Your task to perform on an android device: install app "Viber Messenger" Image 0: 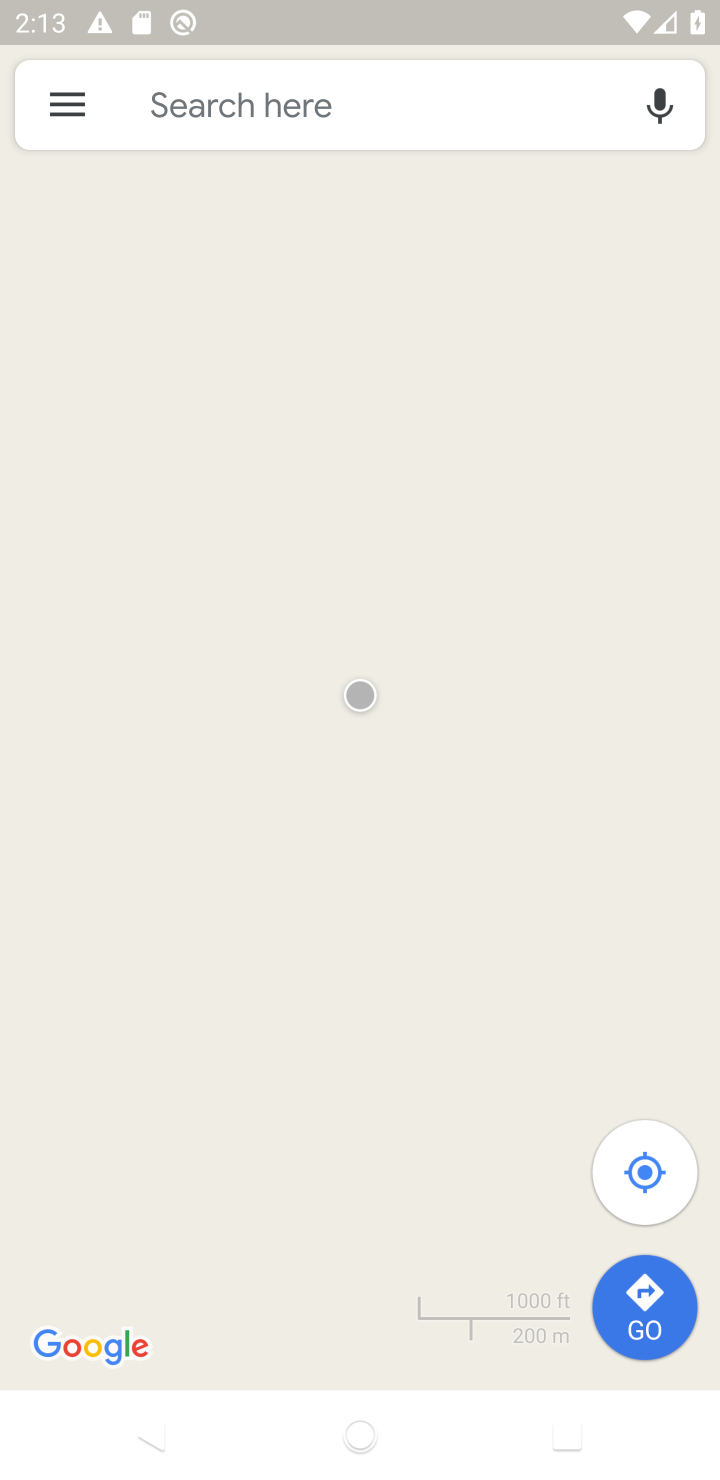
Step 0: press home button
Your task to perform on an android device: install app "Viber Messenger" Image 1: 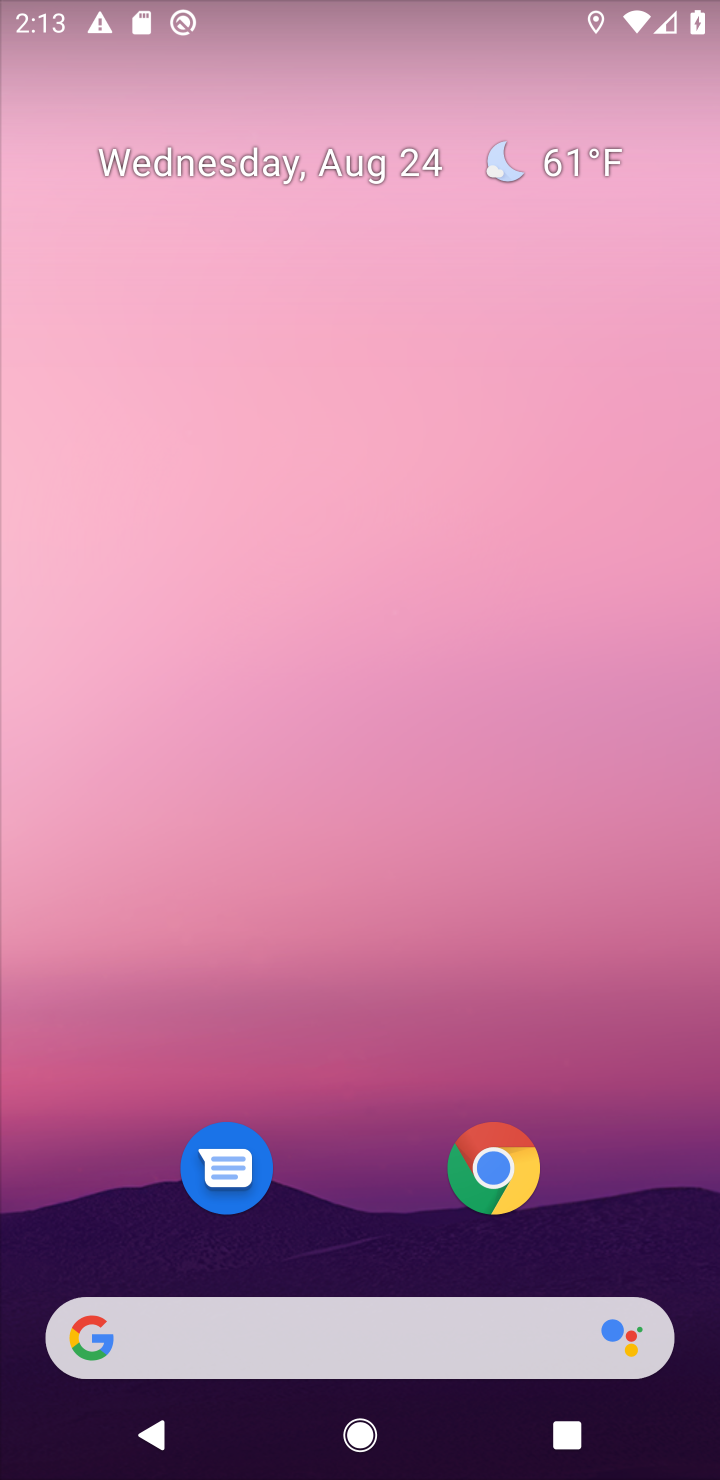
Step 1: drag from (661, 1261) to (543, 142)
Your task to perform on an android device: install app "Viber Messenger" Image 2: 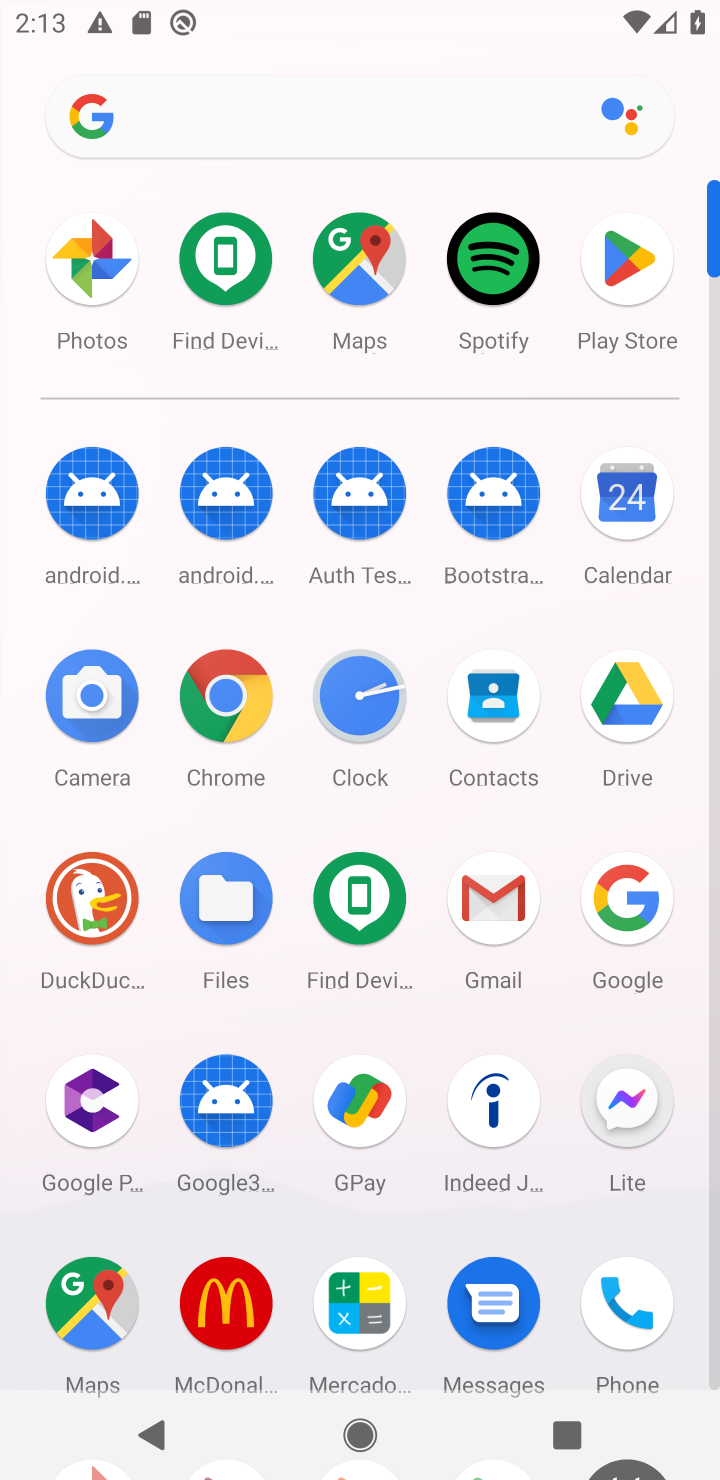
Step 2: click (716, 1335)
Your task to perform on an android device: install app "Viber Messenger" Image 3: 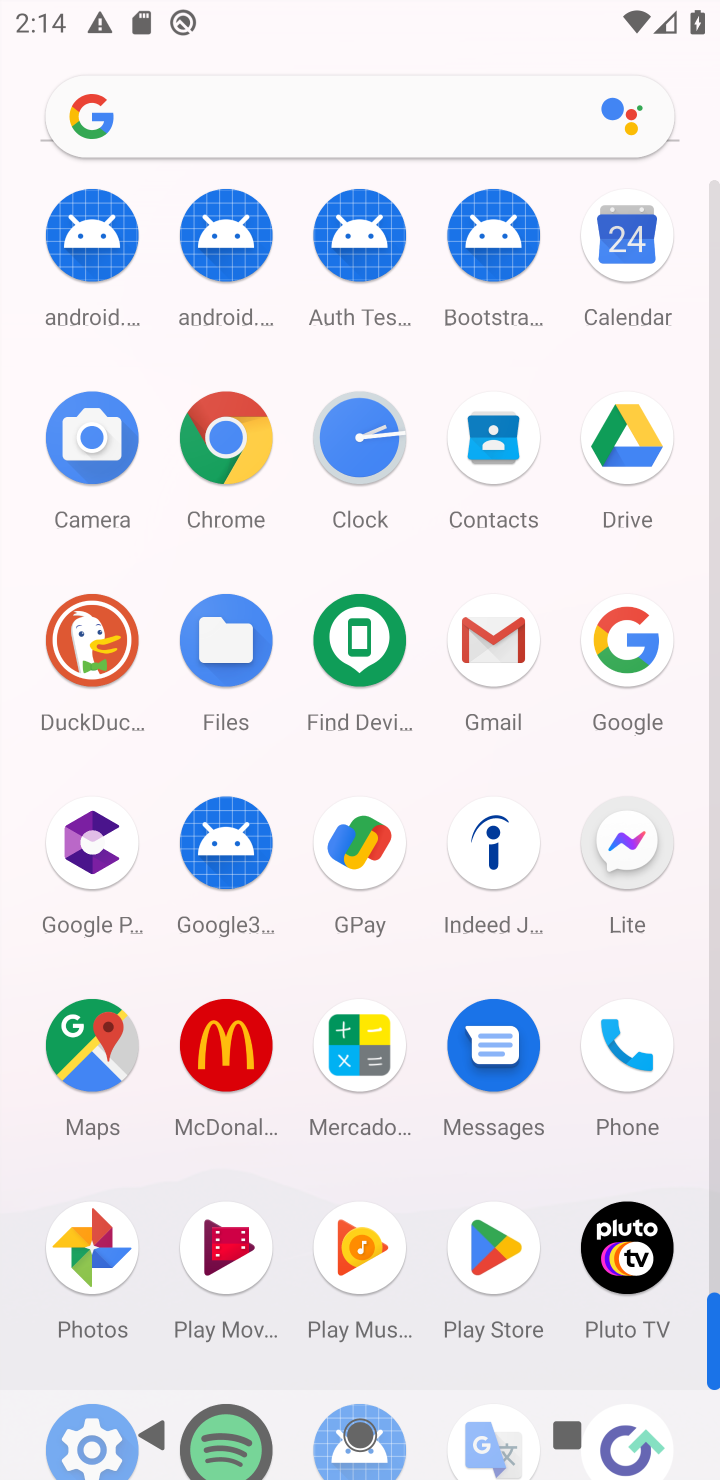
Step 3: click (494, 1241)
Your task to perform on an android device: install app "Viber Messenger" Image 4: 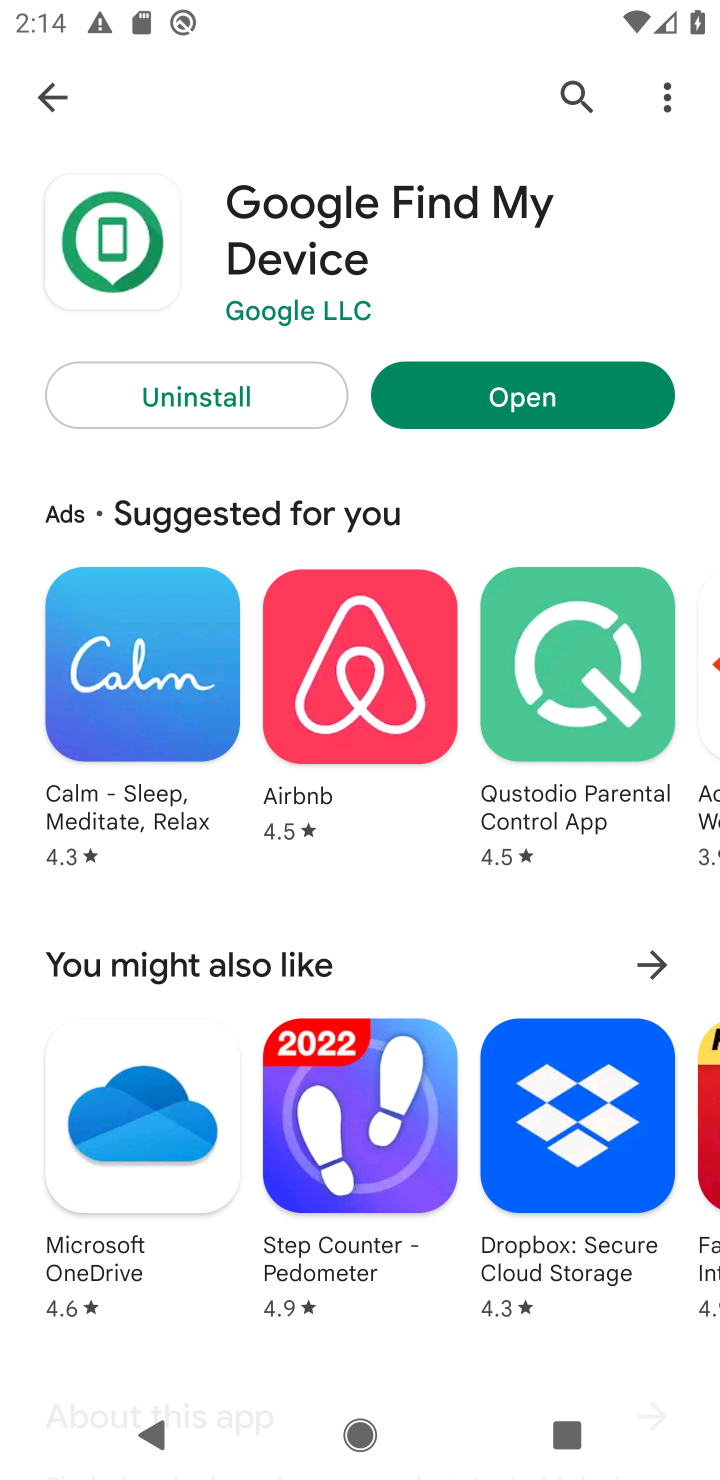
Step 4: click (572, 91)
Your task to perform on an android device: install app "Viber Messenger" Image 5: 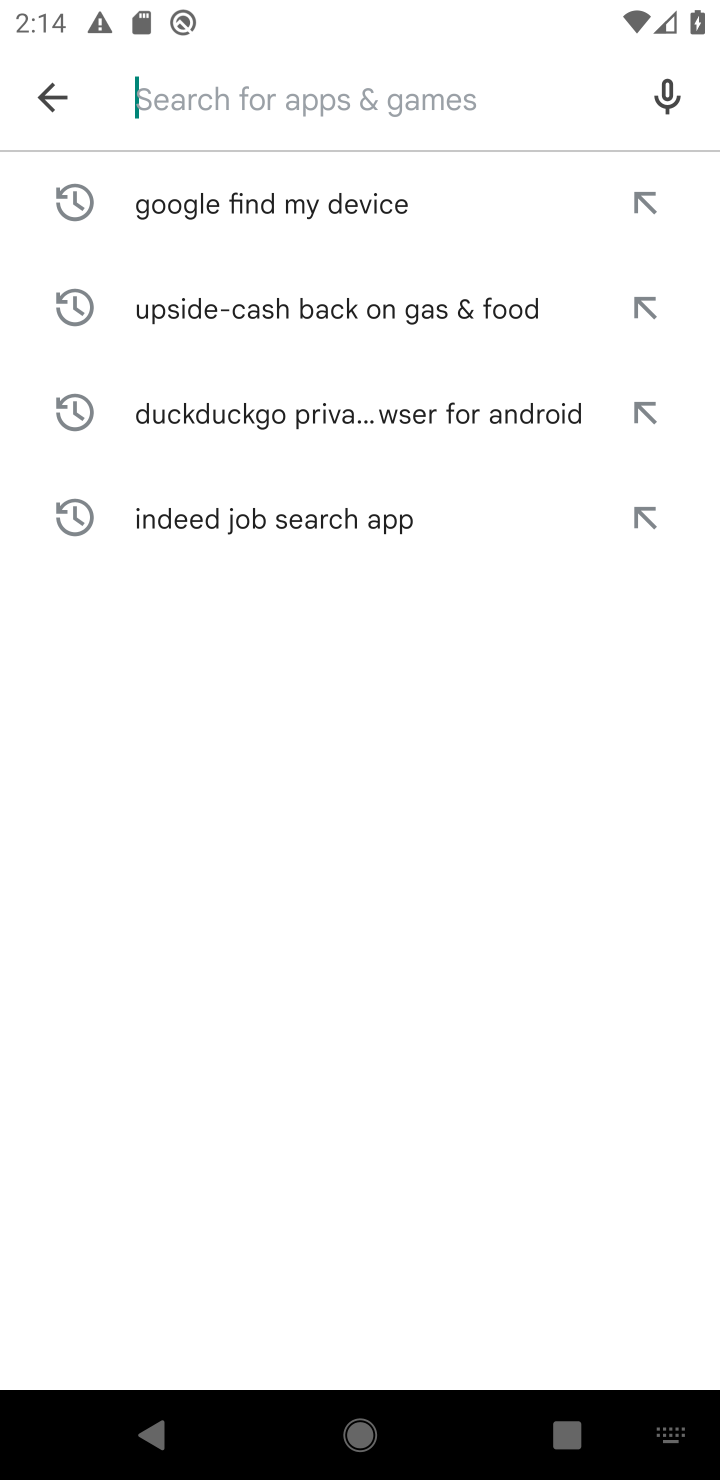
Step 5: type "Viber Messenger"
Your task to perform on an android device: install app "Viber Messenger" Image 6: 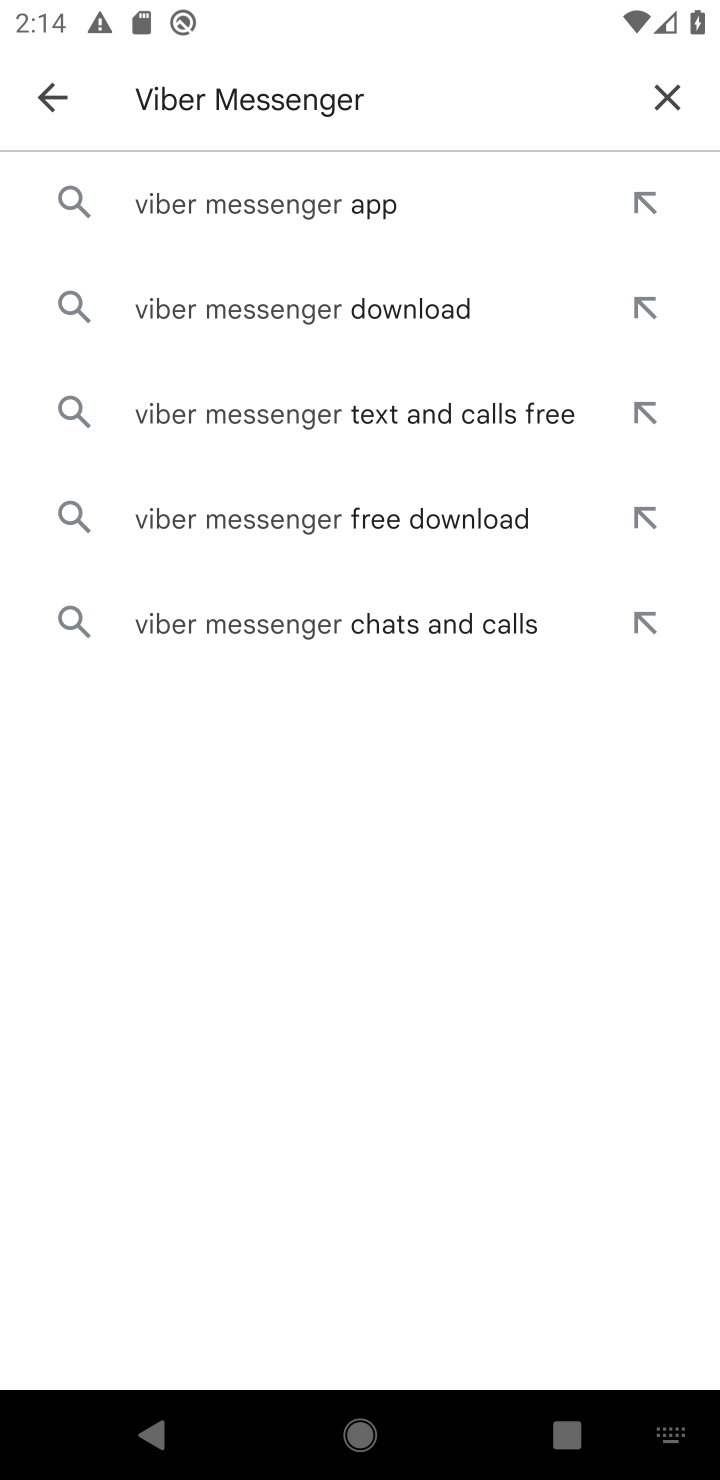
Step 6: click (249, 207)
Your task to perform on an android device: install app "Viber Messenger" Image 7: 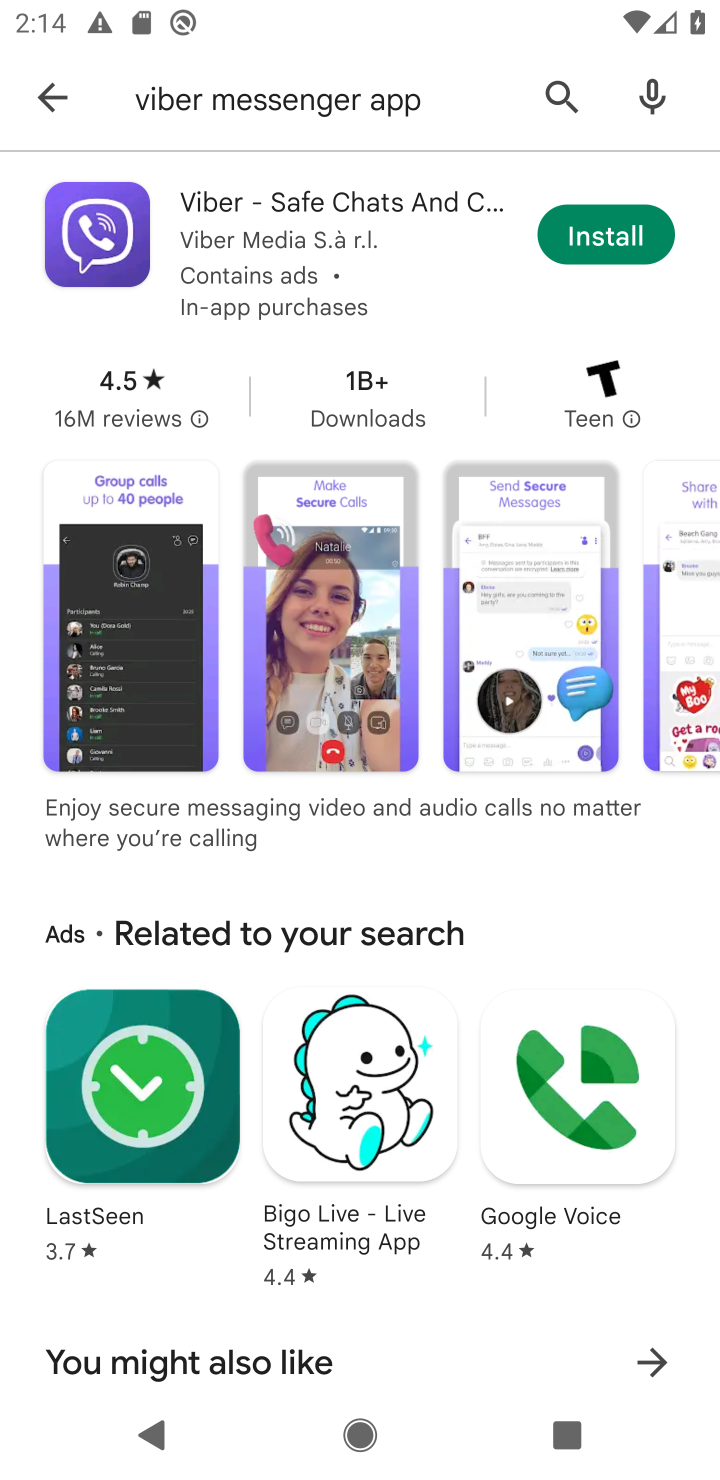
Step 7: click (207, 211)
Your task to perform on an android device: install app "Viber Messenger" Image 8: 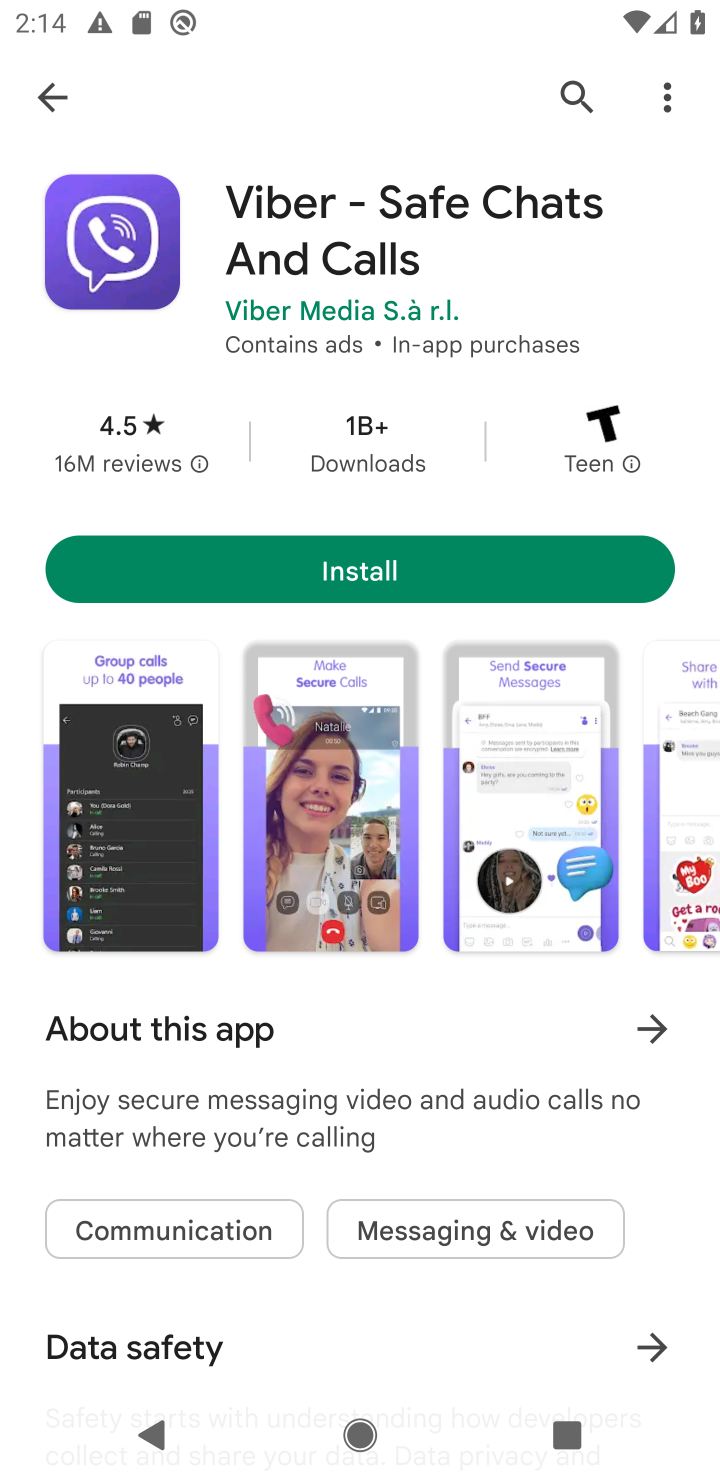
Step 8: click (370, 570)
Your task to perform on an android device: install app "Viber Messenger" Image 9: 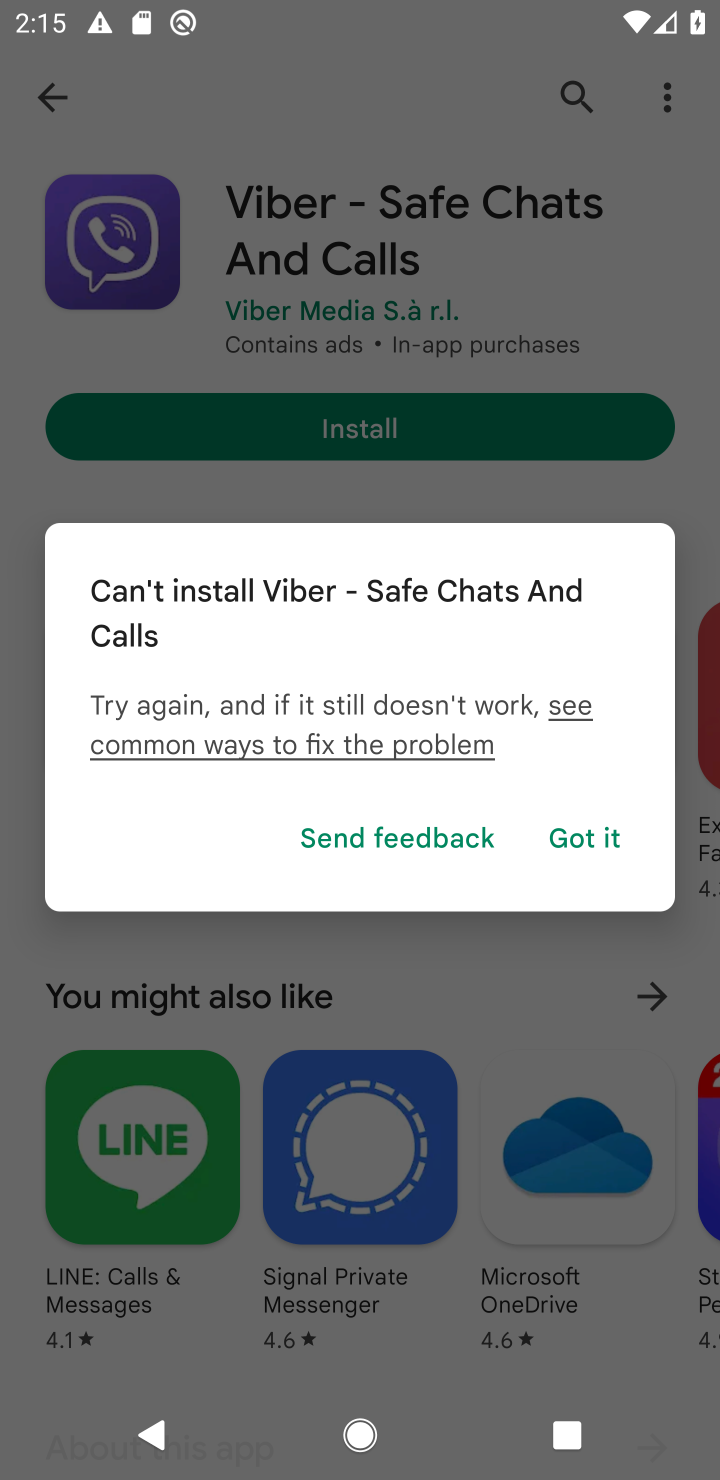
Step 9: click (576, 834)
Your task to perform on an android device: install app "Viber Messenger" Image 10: 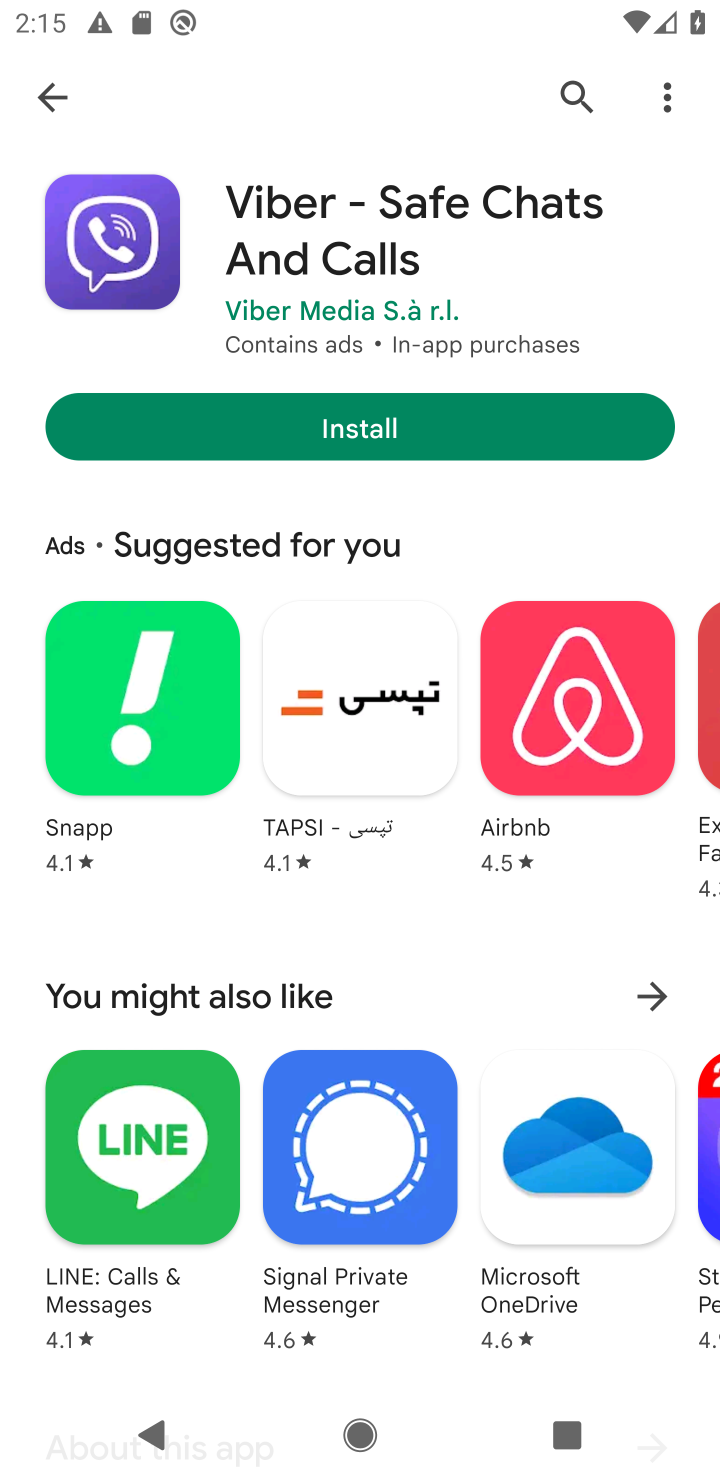
Step 10: click (351, 427)
Your task to perform on an android device: install app "Viber Messenger" Image 11: 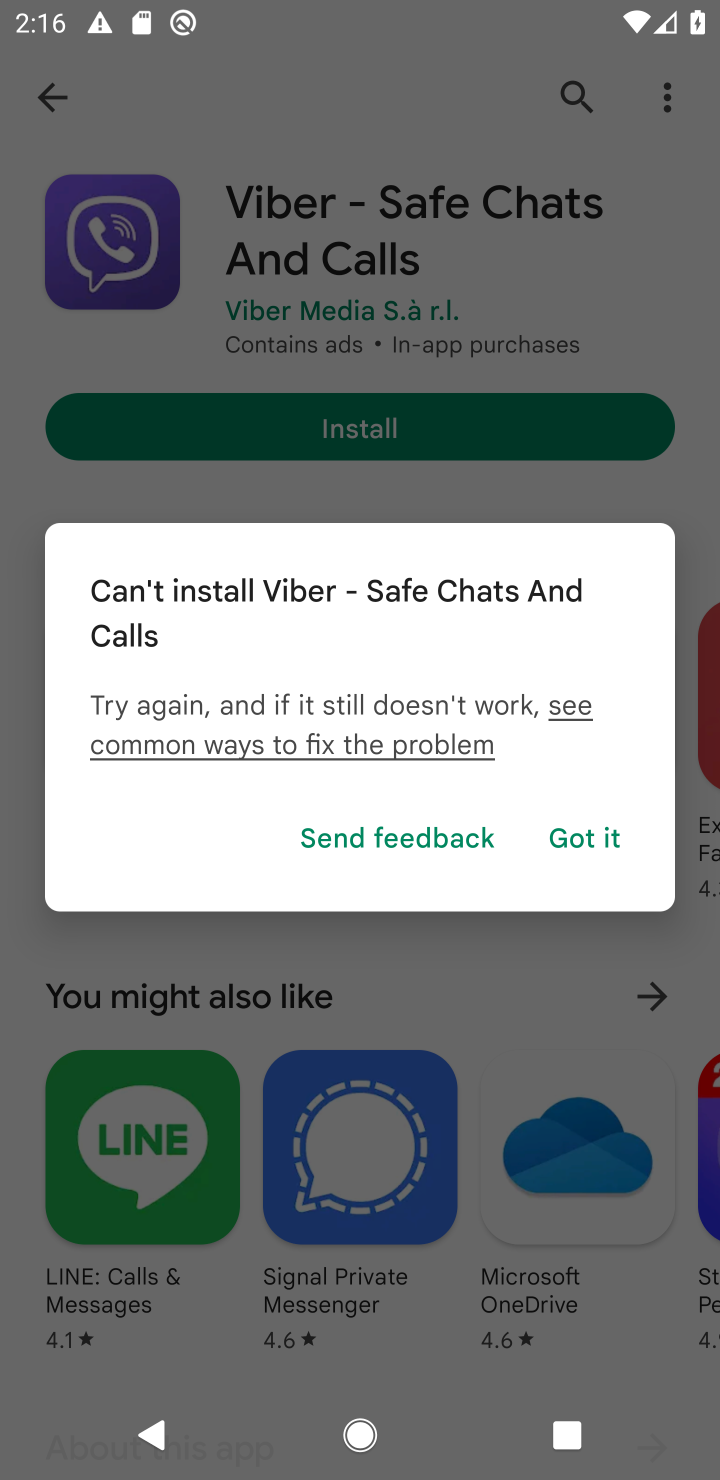
Step 11: click (576, 835)
Your task to perform on an android device: install app "Viber Messenger" Image 12: 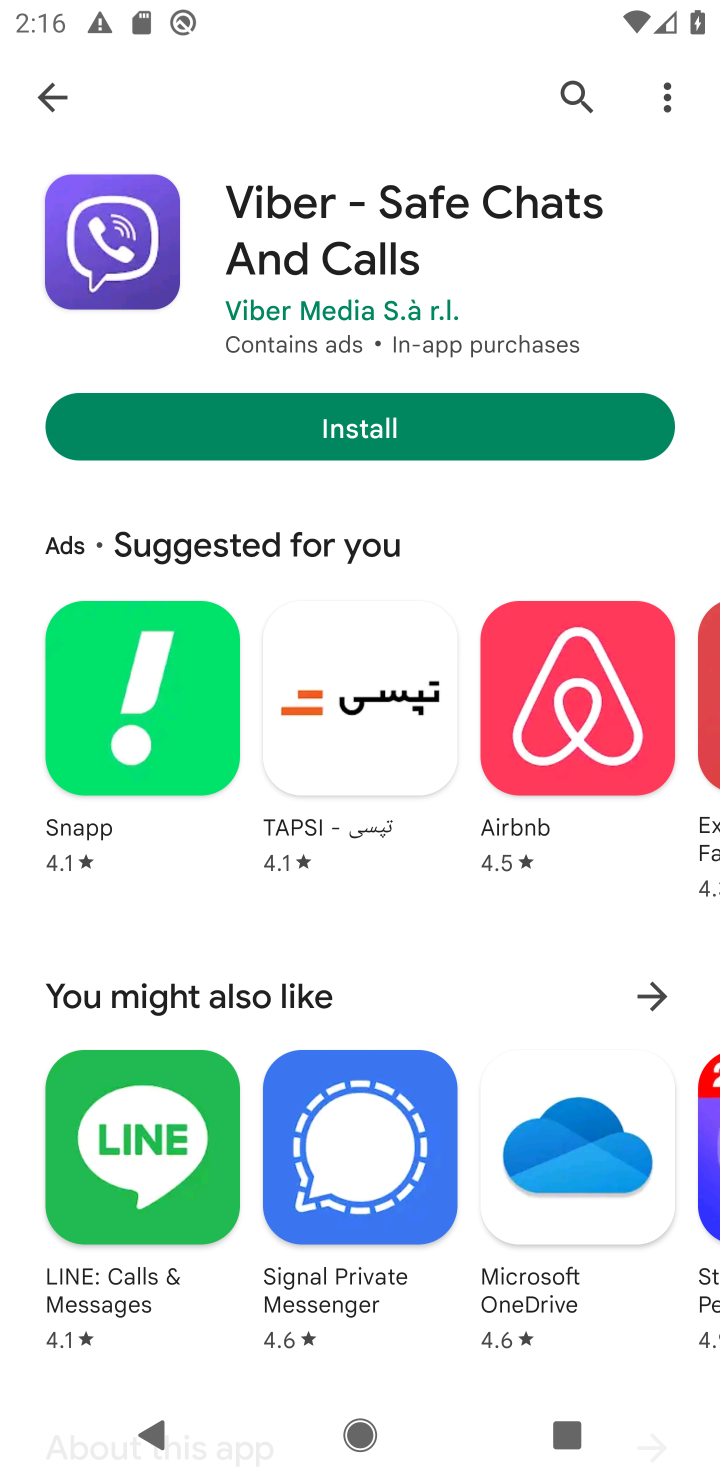
Step 12: task complete